Your task to perform on an android device: Open Maps and search for coffee Image 0: 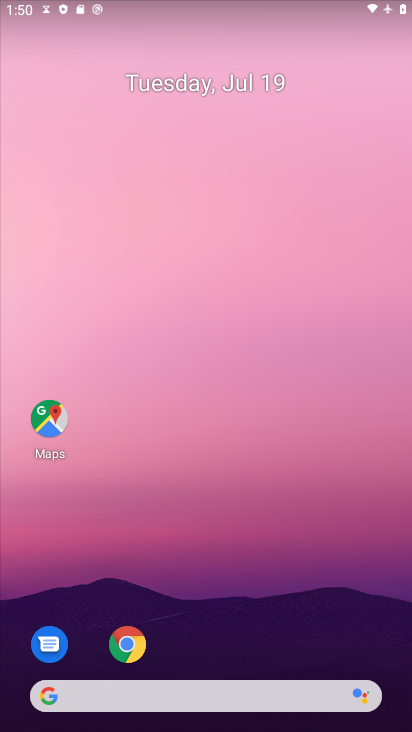
Step 0: click (172, 296)
Your task to perform on an android device: Open Maps and search for coffee Image 1: 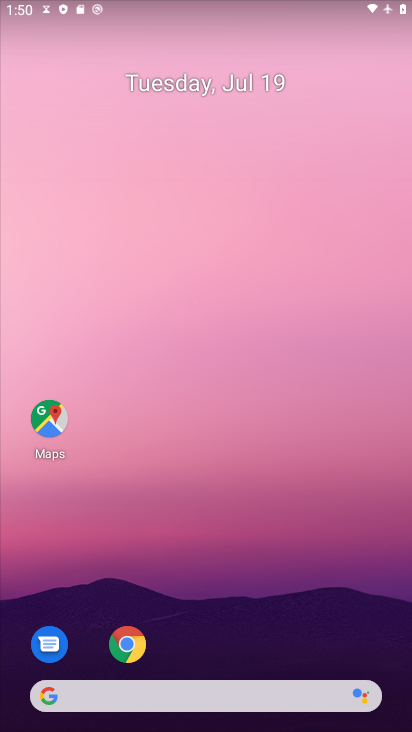
Step 1: click (50, 405)
Your task to perform on an android device: Open Maps and search for coffee Image 2: 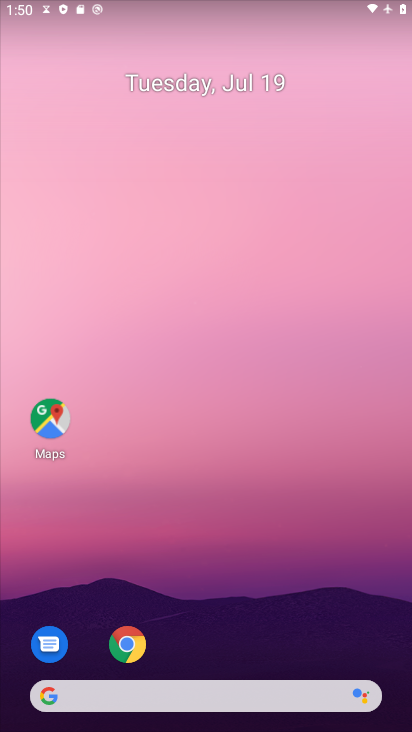
Step 2: click (50, 408)
Your task to perform on an android device: Open Maps and search for coffee Image 3: 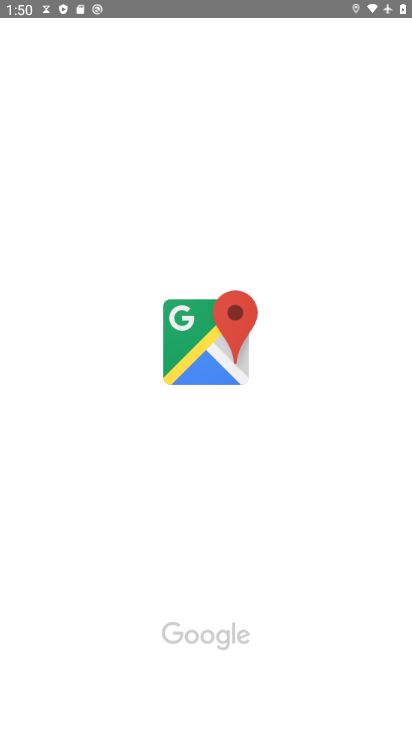
Step 3: click (50, 409)
Your task to perform on an android device: Open Maps and search for coffee Image 4: 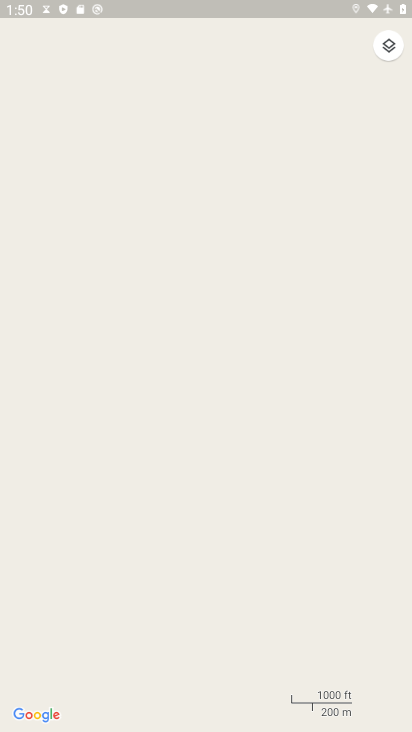
Step 4: click (83, 94)
Your task to perform on an android device: Open Maps and search for coffee Image 5: 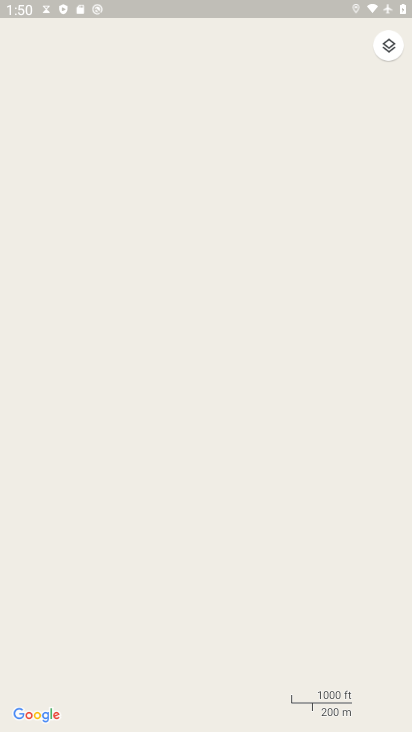
Step 5: click (80, 113)
Your task to perform on an android device: Open Maps and search for coffee Image 6: 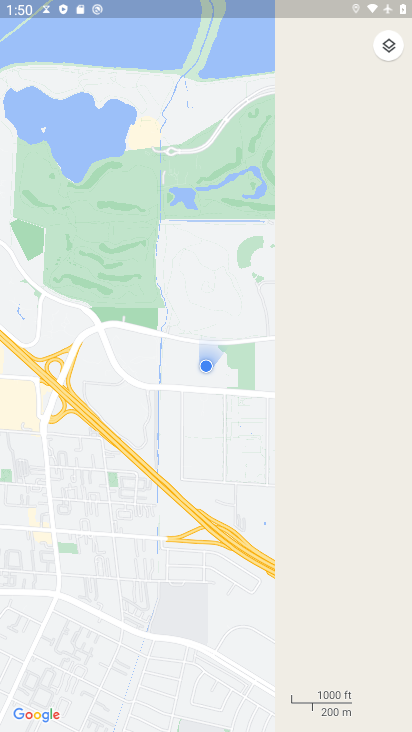
Step 6: click (80, 113)
Your task to perform on an android device: Open Maps and search for coffee Image 7: 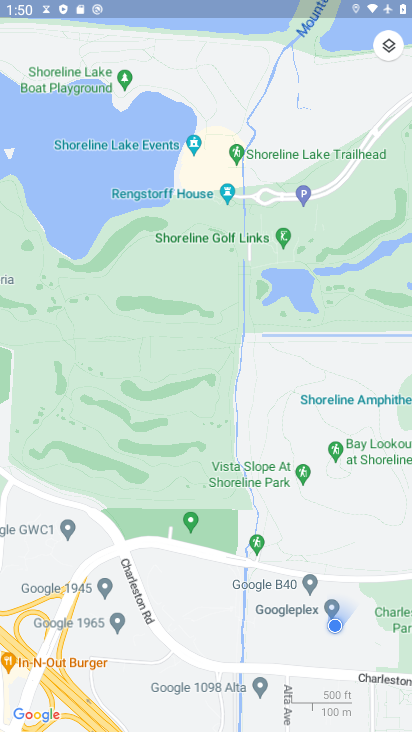
Step 7: drag from (153, 230) to (170, 409)
Your task to perform on an android device: Open Maps and search for coffee Image 8: 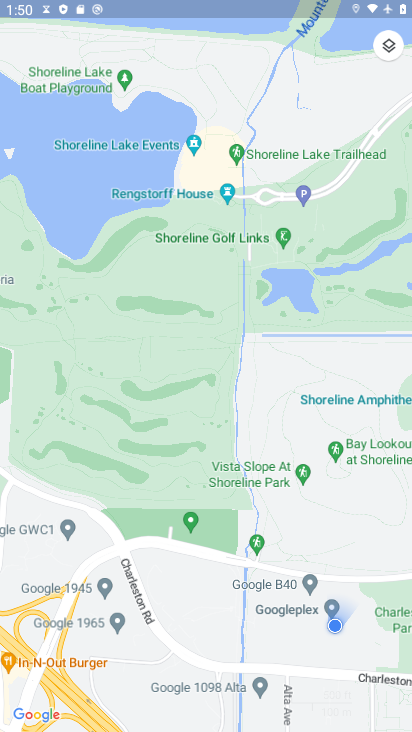
Step 8: click (156, 280)
Your task to perform on an android device: Open Maps and search for coffee Image 9: 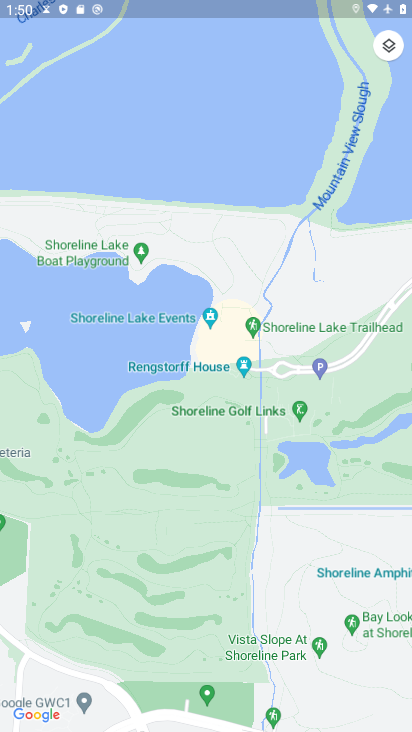
Step 9: click (158, 290)
Your task to perform on an android device: Open Maps and search for coffee Image 10: 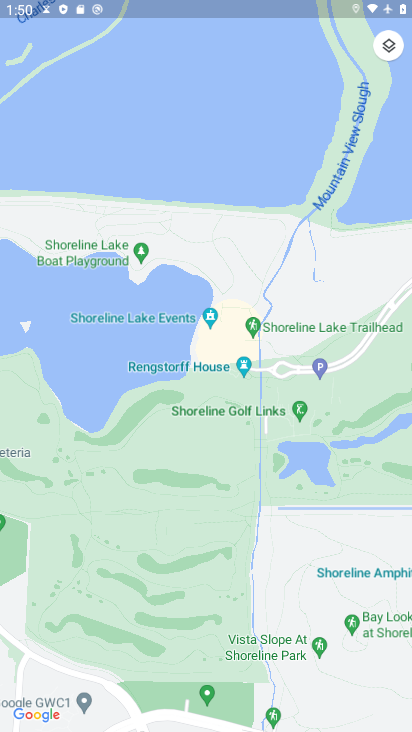
Step 10: click (175, 217)
Your task to perform on an android device: Open Maps and search for coffee Image 11: 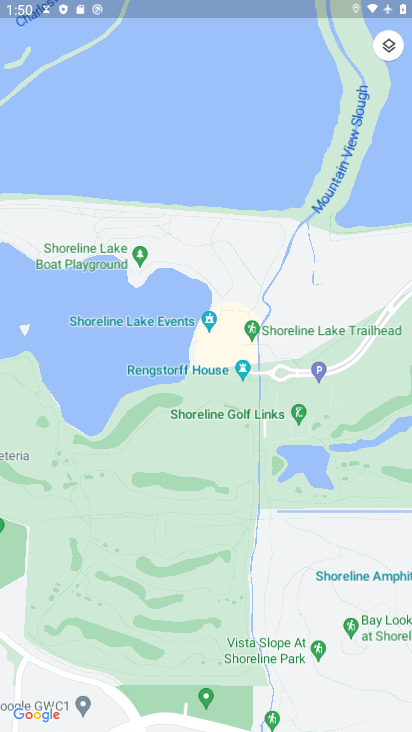
Step 11: click (130, 178)
Your task to perform on an android device: Open Maps and search for coffee Image 12: 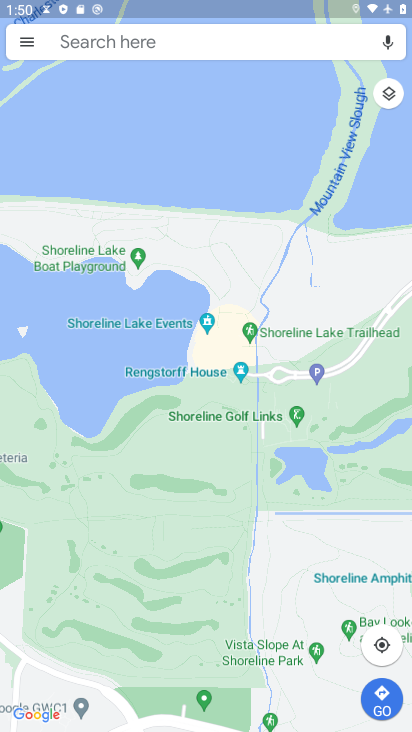
Step 12: click (66, 40)
Your task to perform on an android device: Open Maps and search for coffee Image 13: 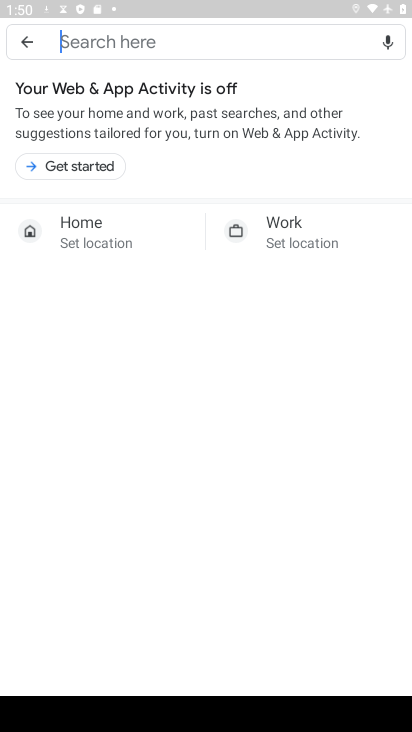
Step 13: type "coffee"
Your task to perform on an android device: Open Maps and search for coffee Image 14: 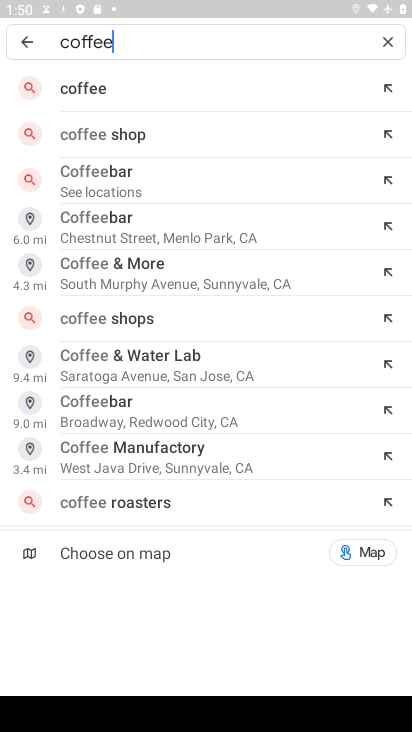
Step 14: click (109, 84)
Your task to perform on an android device: Open Maps and search for coffee Image 15: 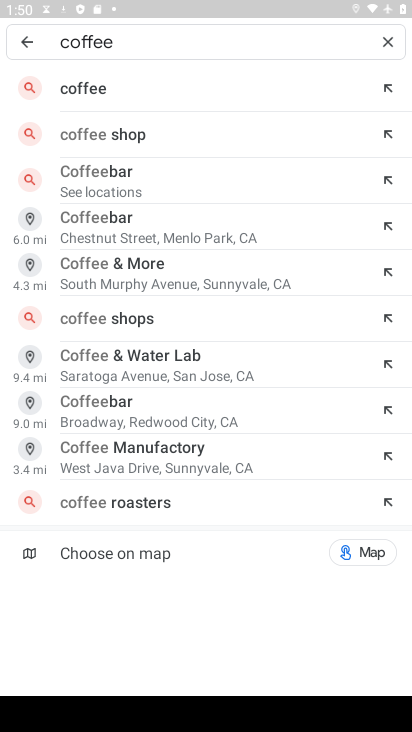
Step 15: click (106, 88)
Your task to perform on an android device: Open Maps and search for coffee Image 16: 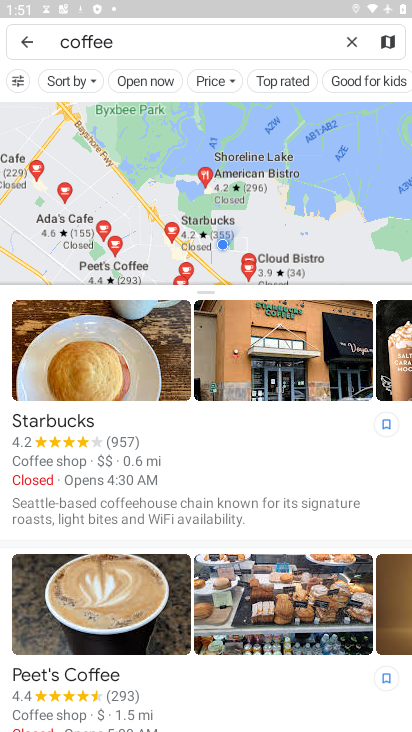
Step 16: task complete